Your task to perform on an android device: Go to settings Image 0: 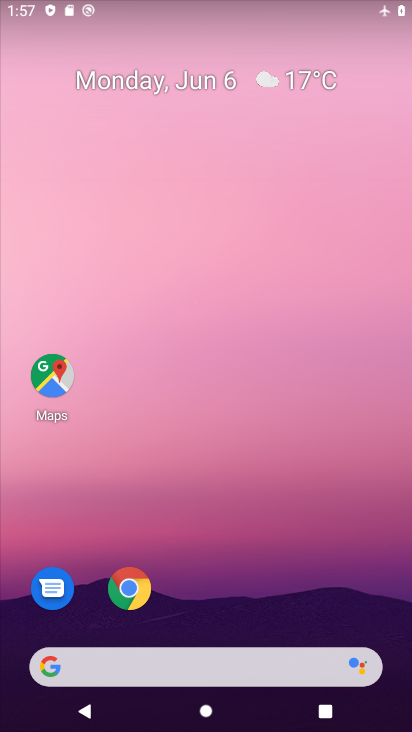
Step 0: drag from (242, 654) to (213, 301)
Your task to perform on an android device: Go to settings Image 1: 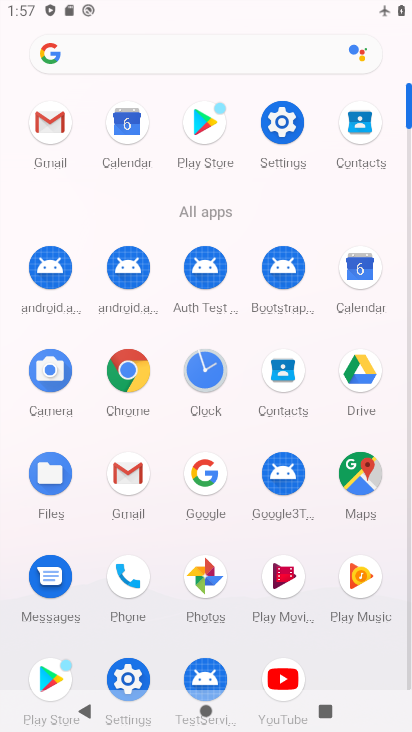
Step 1: click (275, 138)
Your task to perform on an android device: Go to settings Image 2: 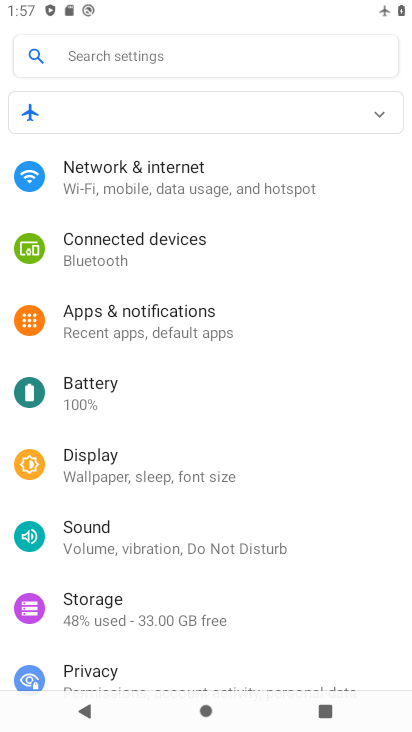
Step 2: task complete